Your task to perform on an android device: open app "Microsoft Excel" Image 0: 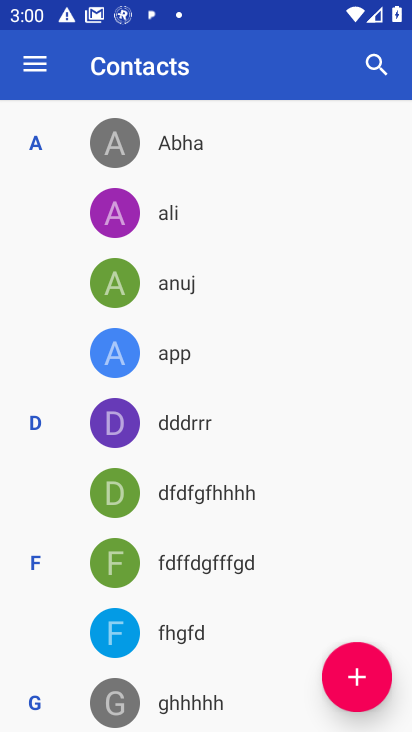
Step 0: press home button
Your task to perform on an android device: open app "Microsoft Excel" Image 1: 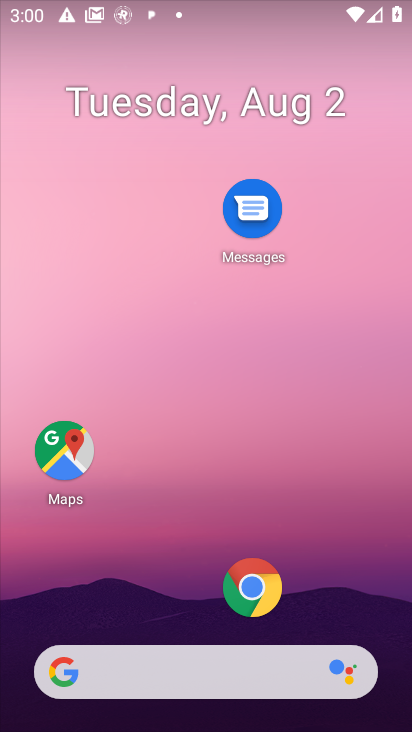
Step 1: drag from (189, 612) to (185, 259)
Your task to perform on an android device: open app "Microsoft Excel" Image 2: 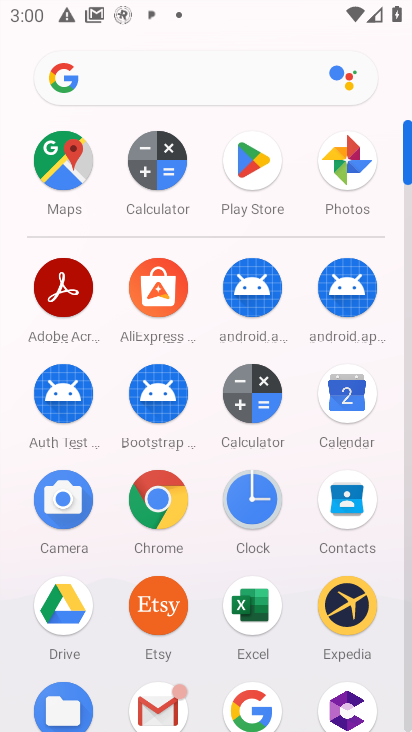
Step 2: click (230, 162)
Your task to perform on an android device: open app "Microsoft Excel" Image 3: 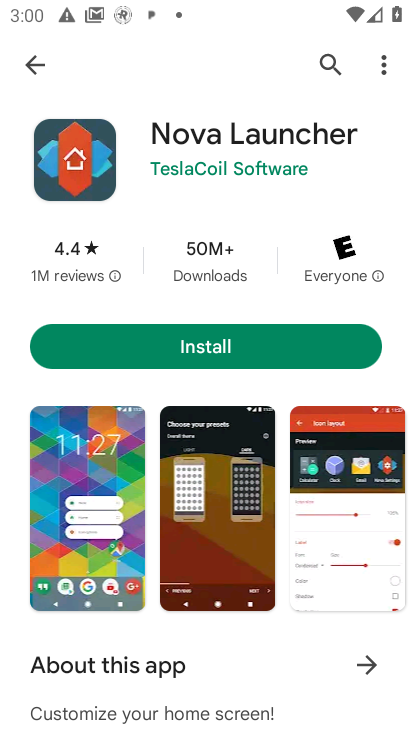
Step 3: click (374, 67)
Your task to perform on an android device: open app "Microsoft Excel" Image 4: 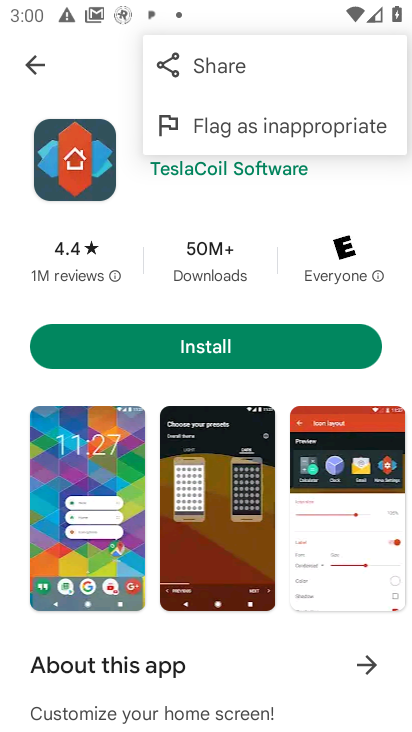
Step 4: click (335, 66)
Your task to perform on an android device: open app "Microsoft Excel" Image 5: 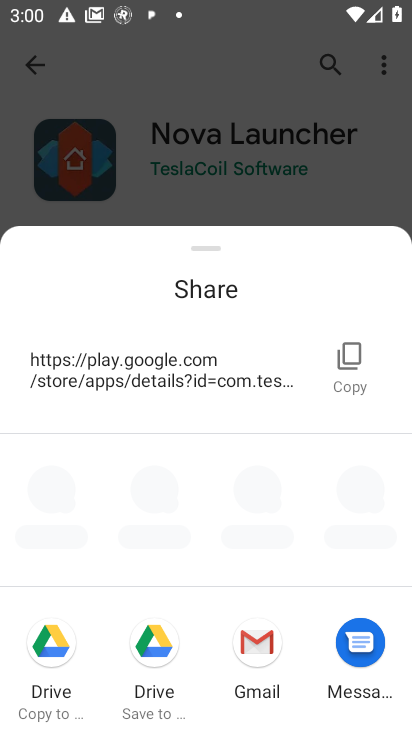
Step 5: click (34, 50)
Your task to perform on an android device: open app "Microsoft Excel" Image 6: 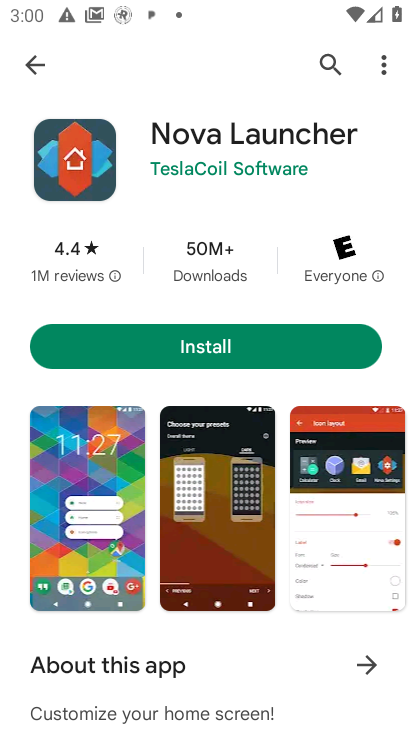
Step 6: click (329, 69)
Your task to perform on an android device: open app "Microsoft Excel" Image 7: 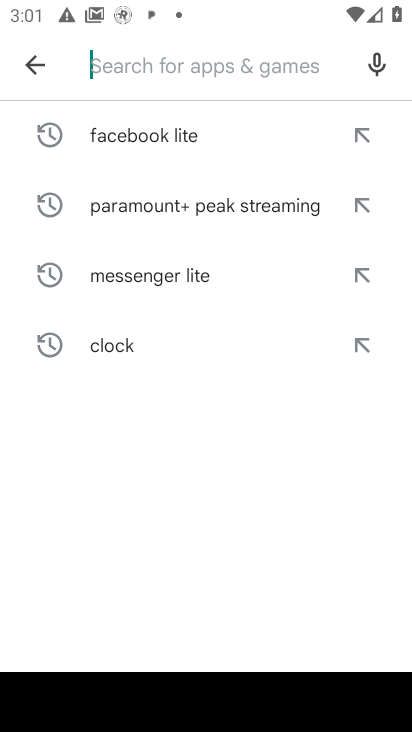
Step 7: type "Microsoft Excel"
Your task to perform on an android device: open app "Microsoft Excel" Image 8: 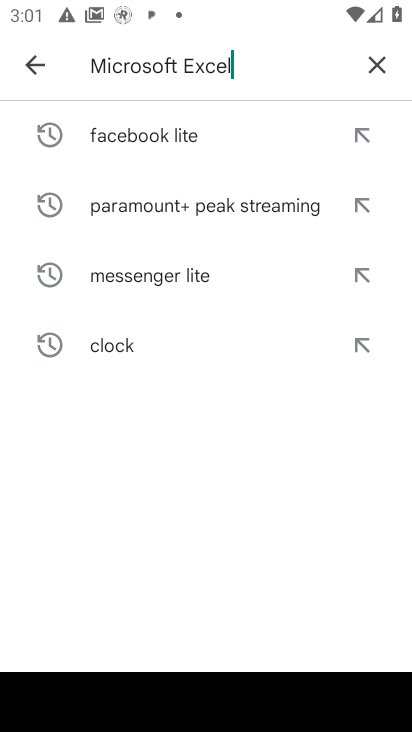
Step 8: type ""
Your task to perform on an android device: open app "Microsoft Excel" Image 9: 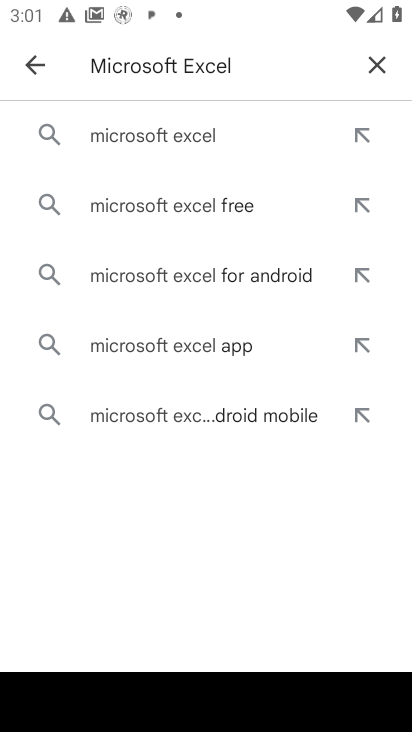
Step 9: click (158, 138)
Your task to perform on an android device: open app "Microsoft Excel" Image 10: 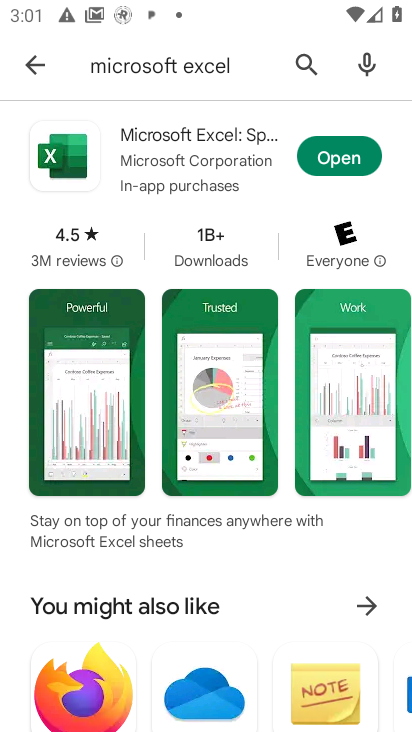
Step 10: click (358, 152)
Your task to perform on an android device: open app "Microsoft Excel" Image 11: 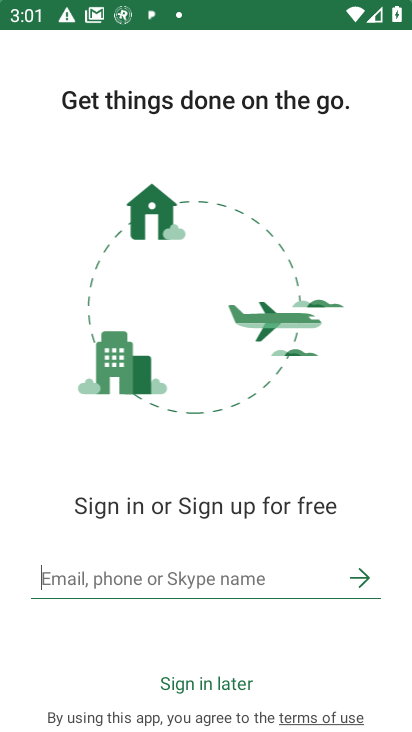
Step 11: task complete